Your task to perform on an android device: Search for the best 4k TVs Image 0: 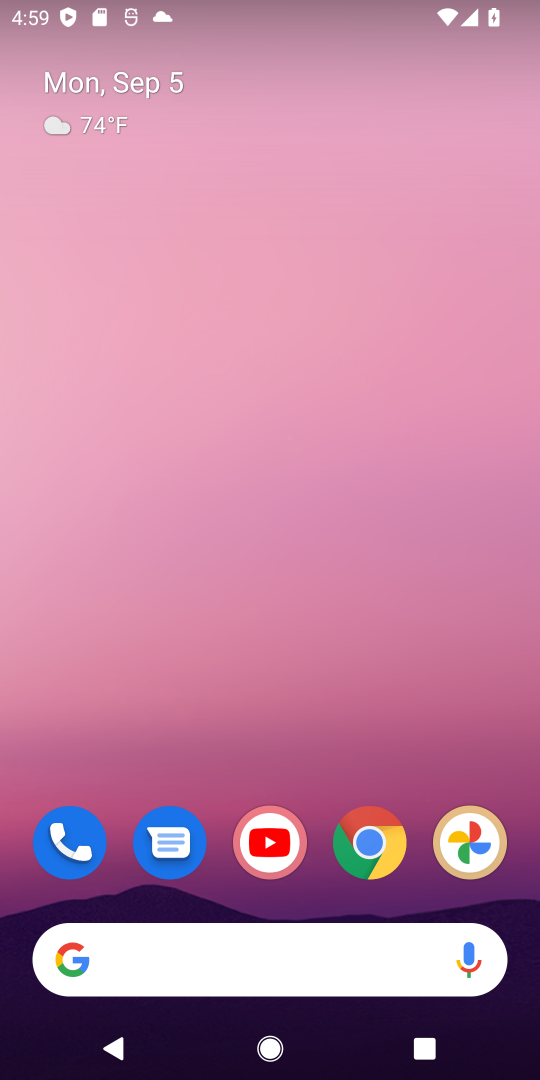
Step 0: click (372, 841)
Your task to perform on an android device: Search for the best 4k TVs Image 1: 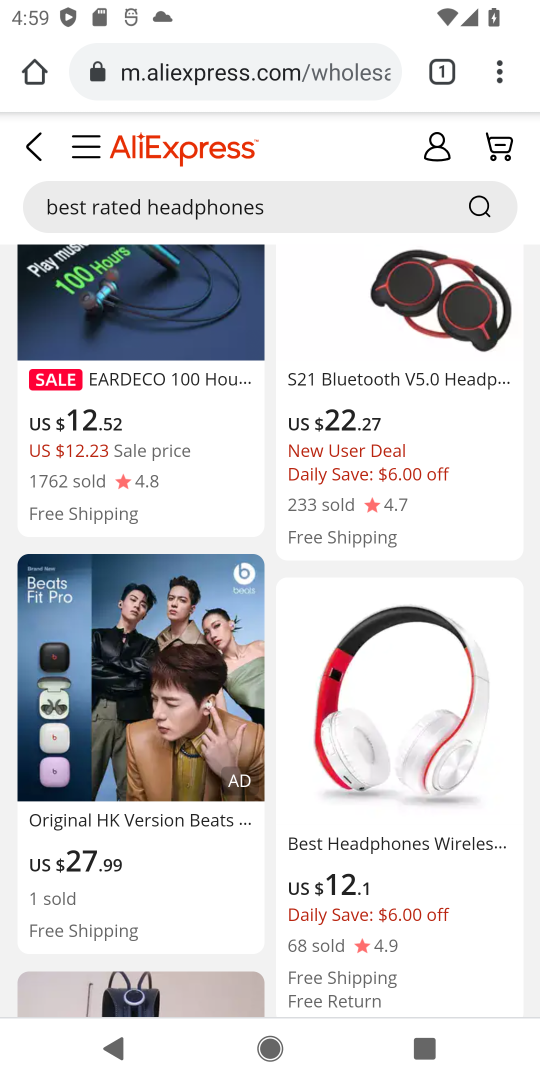
Step 1: click (309, 63)
Your task to perform on an android device: Search for the best 4k TVs Image 2: 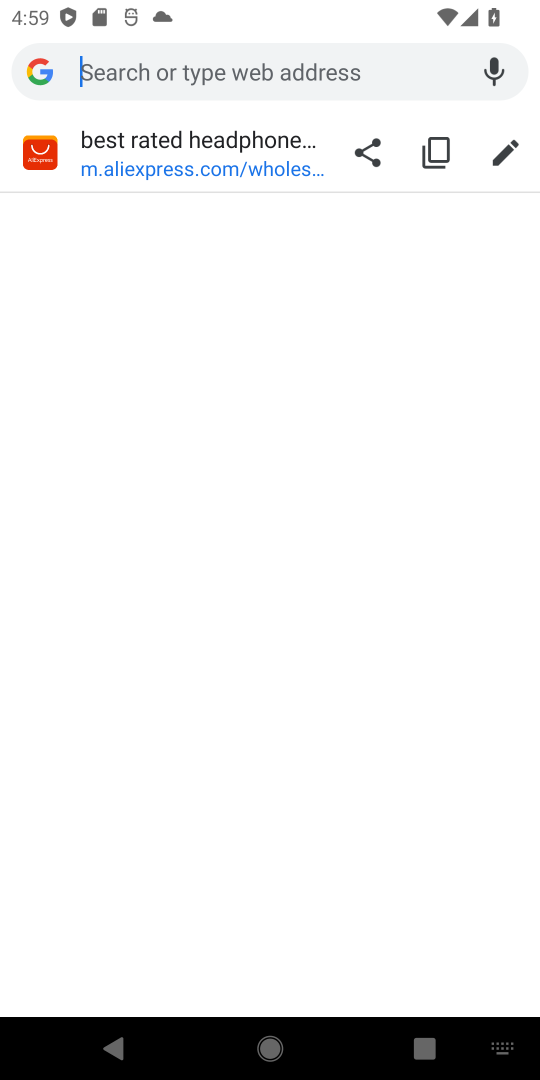
Step 2: type "best 4k TVs"
Your task to perform on an android device: Search for the best 4k TVs Image 3: 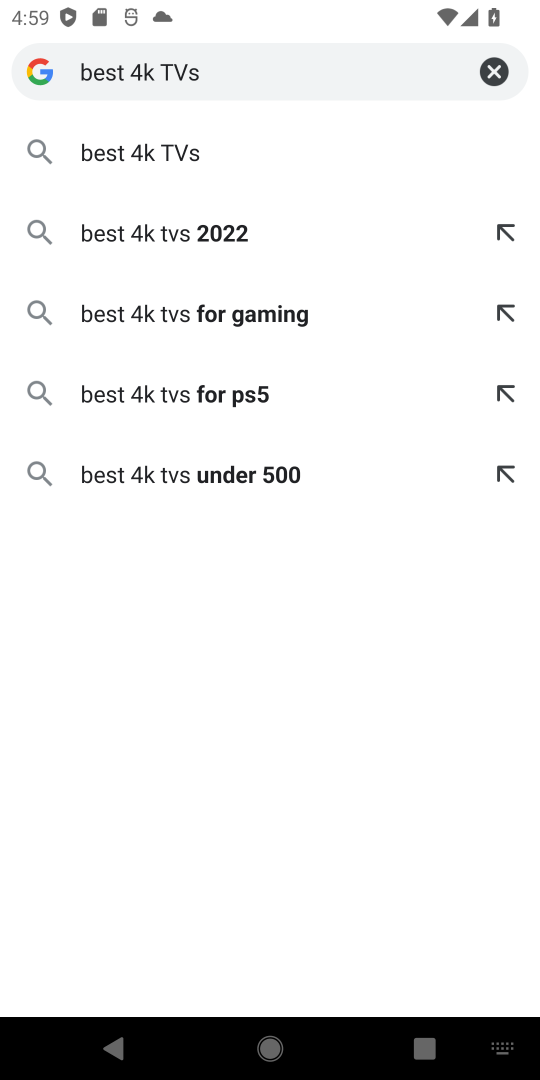
Step 3: click (132, 151)
Your task to perform on an android device: Search for the best 4k TVs Image 4: 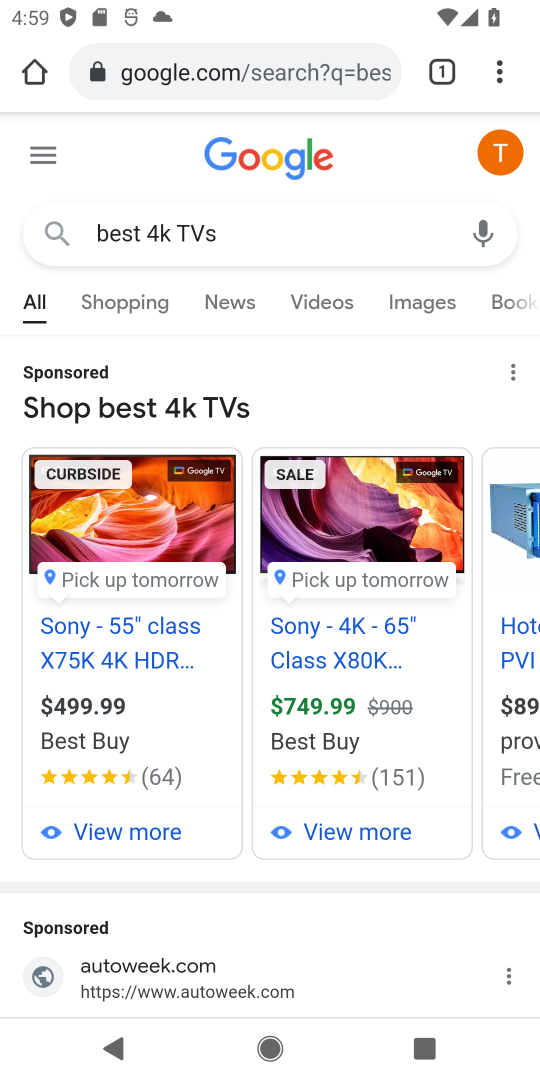
Step 4: task complete